Your task to perform on an android device: Play the last video I watched on Youtube Image 0: 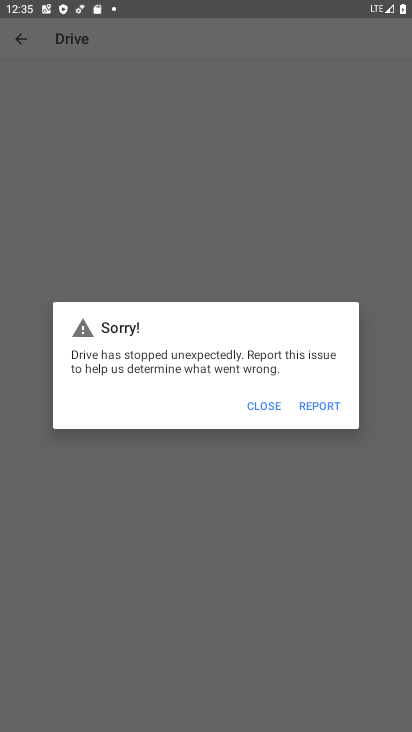
Step 0: press home button
Your task to perform on an android device: Play the last video I watched on Youtube Image 1: 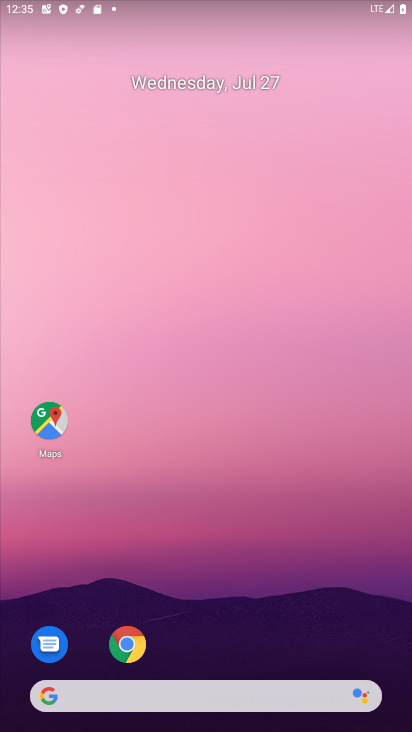
Step 1: drag from (224, 655) to (225, 144)
Your task to perform on an android device: Play the last video I watched on Youtube Image 2: 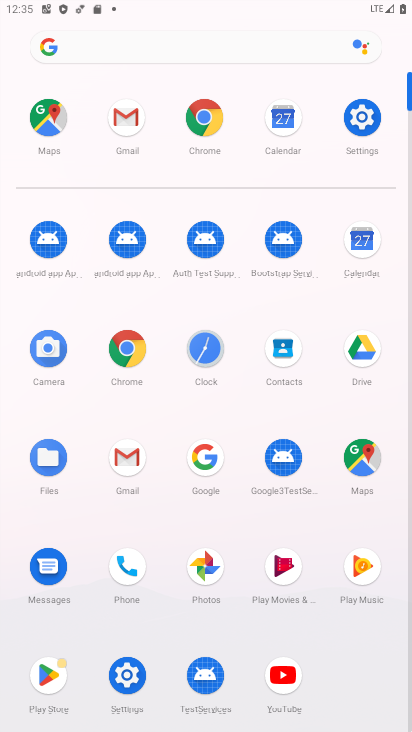
Step 2: click (286, 672)
Your task to perform on an android device: Play the last video I watched on Youtube Image 3: 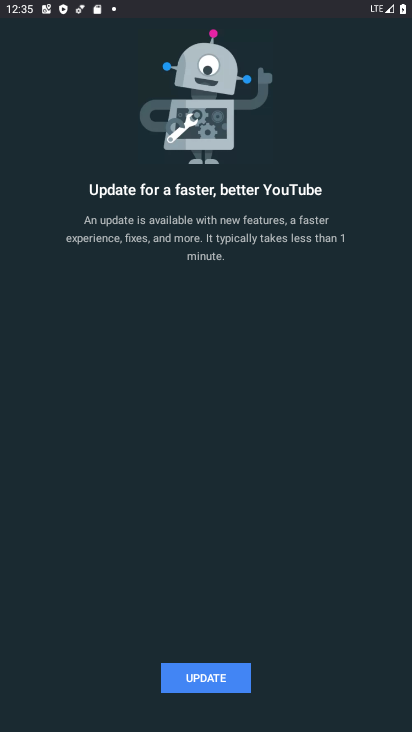
Step 3: click (224, 681)
Your task to perform on an android device: Play the last video I watched on Youtube Image 4: 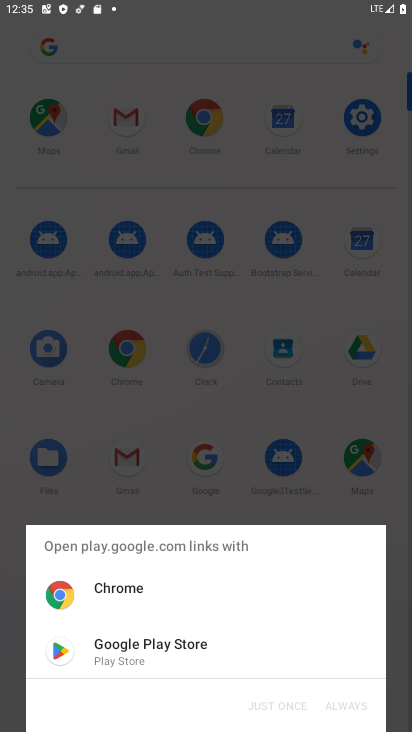
Step 4: click (126, 648)
Your task to perform on an android device: Play the last video I watched on Youtube Image 5: 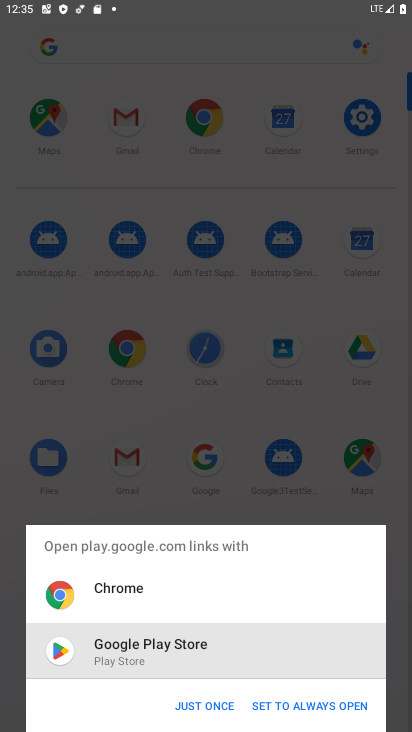
Step 5: click (201, 706)
Your task to perform on an android device: Play the last video I watched on Youtube Image 6: 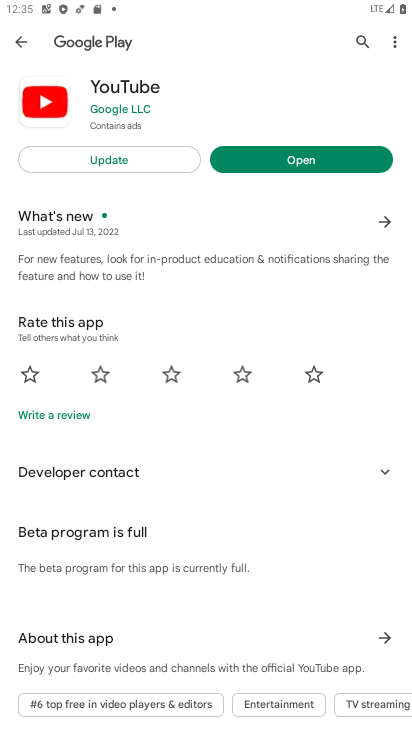
Step 6: click (138, 155)
Your task to perform on an android device: Play the last video I watched on Youtube Image 7: 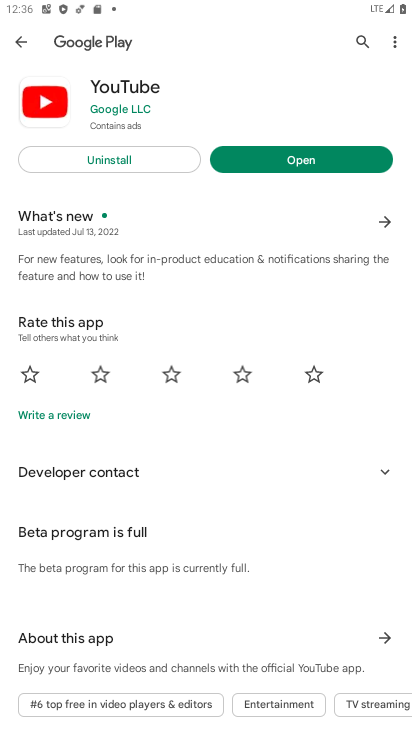
Step 7: click (296, 164)
Your task to perform on an android device: Play the last video I watched on Youtube Image 8: 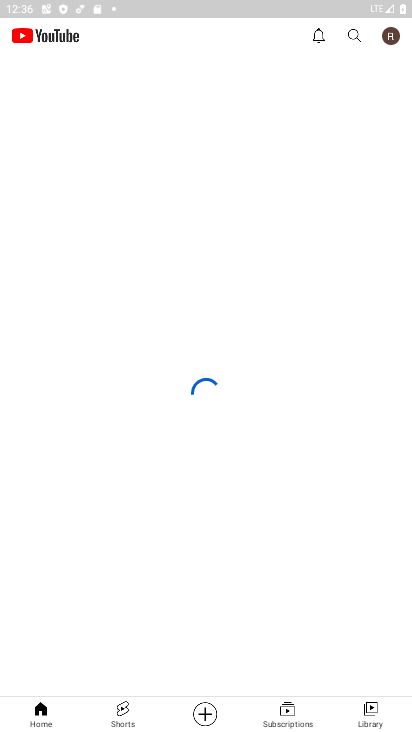
Step 8: click (356, 711)
Your task to perform on an android device: Play the last video I watched on Youtube Image 9: 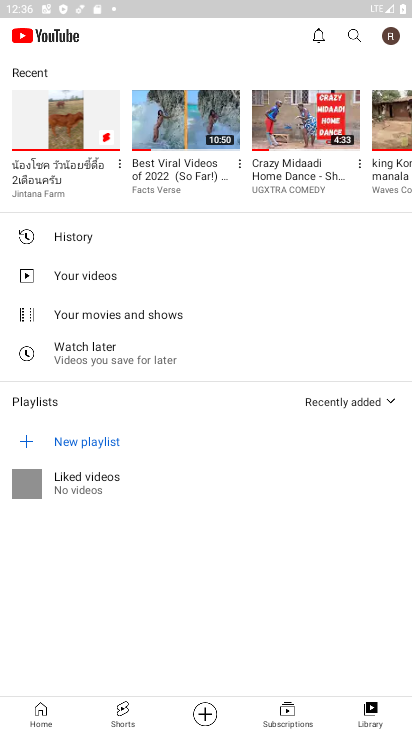
Step 9: click (64, 124)
Your task to perform on an android device: Play the last video I watched on Youtube Image 10: 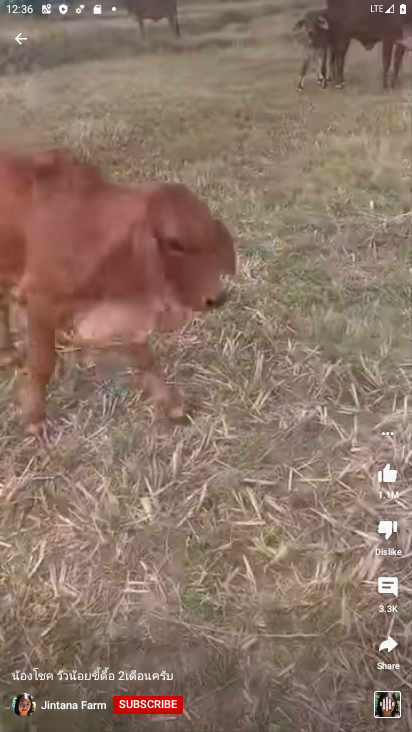
Step 10: task complete